Your task to perform on an android device: open chrome and create a bookmark for the current page Image 0: 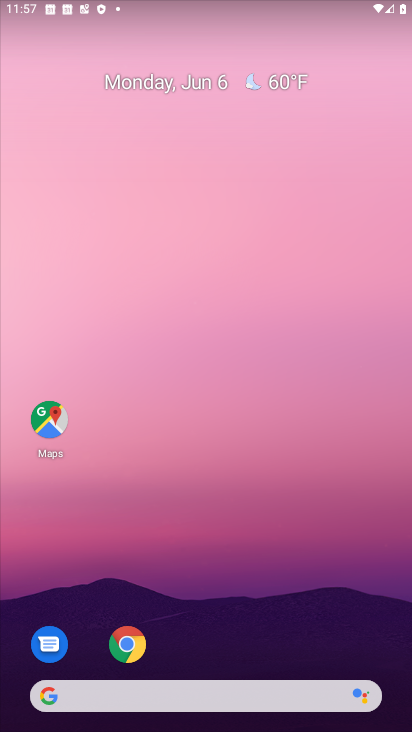
Step 0: drag from (223, 595) to (280, 266)
Your task to perform on an android device: open chrome and create a bookmark for the current page Image 1: 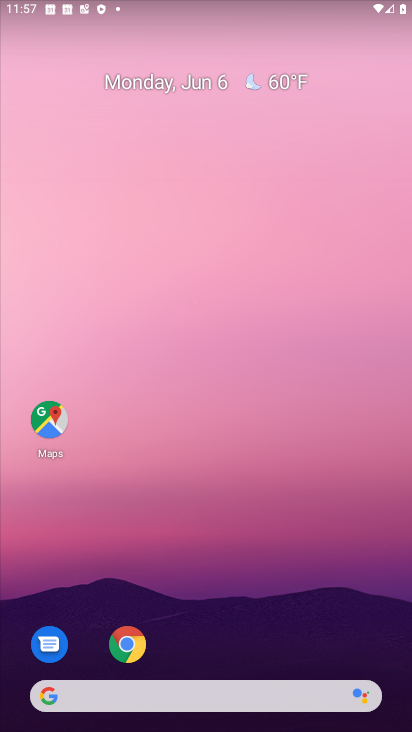
Step 1: drag from (246, 660) to (317, 245)
Your task to perform on an android device: open chrome and create a bookmark for the current page Image 2: 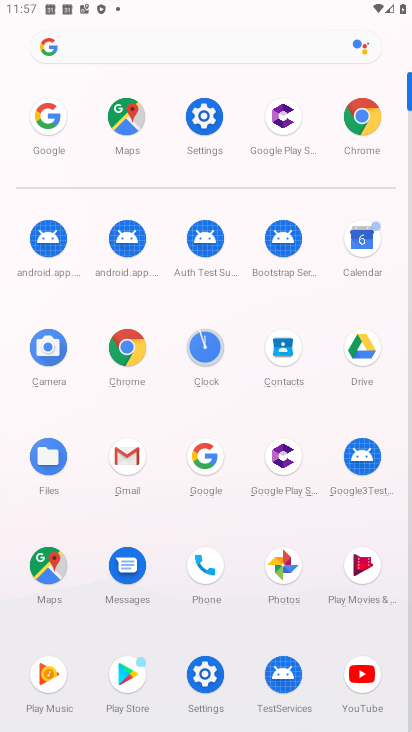
Step 2: click (139, 374)
Your task to perform on an android device: open chrome and create a bookmark for the current page Image 3: 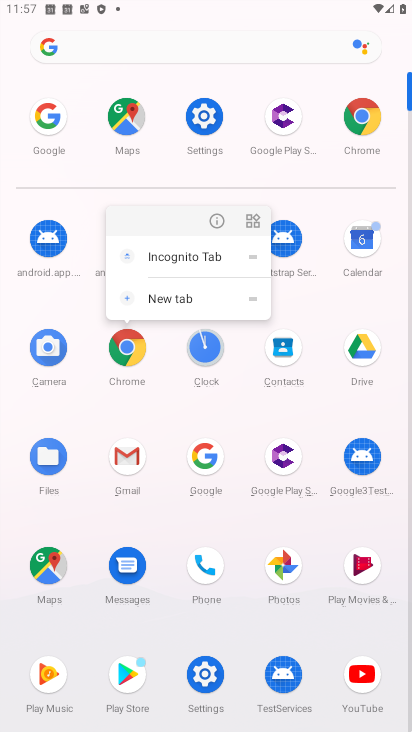
Step 3: click (133, 381)
Your task to perform on an android device: open chrome and create a bookmark for the current page Image 4: 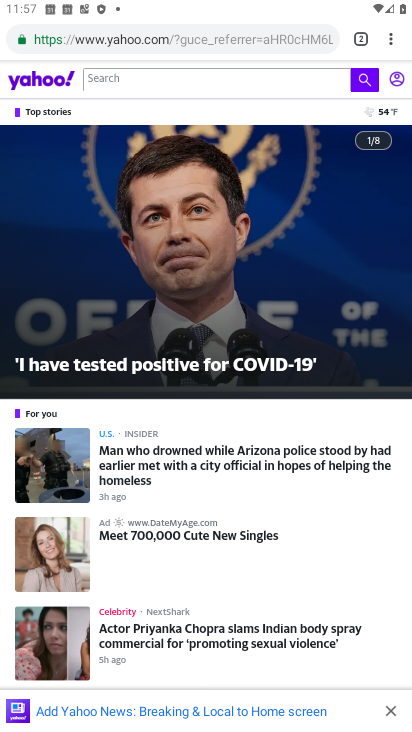
Step 4: click (392, 43)
Your task to perform on an android device: open chrome and create a bookmark for the current page Image 5: 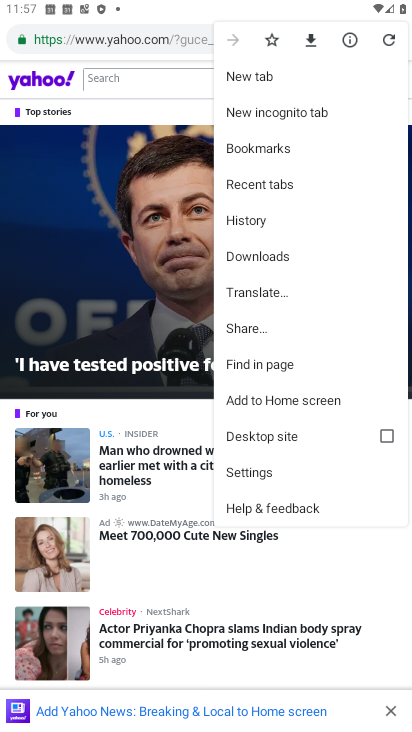
Step 5: click (278, 41)
Your task to perform on an android device: open chrome and create a bookmark for the current page Image 6: 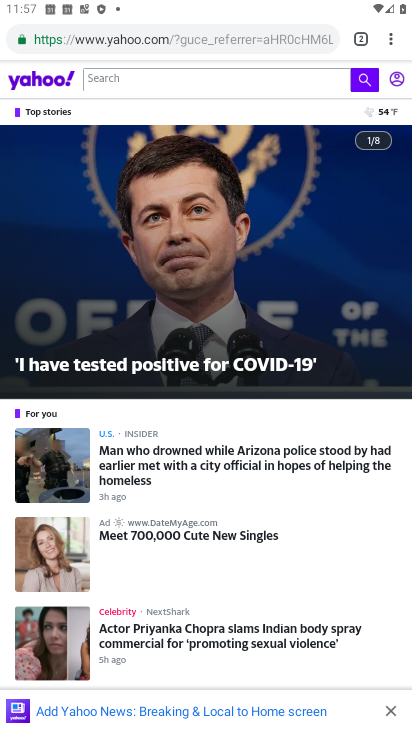
Step 6: task complete